Your task to perform on an android device: turn on notifications settings in the gmail app Image 0: 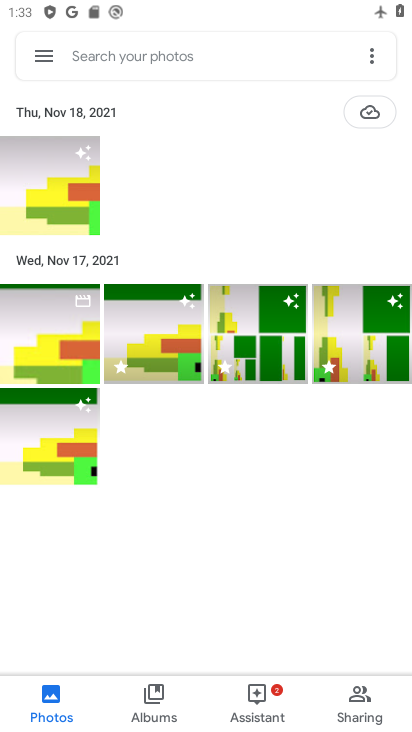
Step 0: press home button
Your task to perform on an android device: turn on notifications settings in the gmail app Image 1: 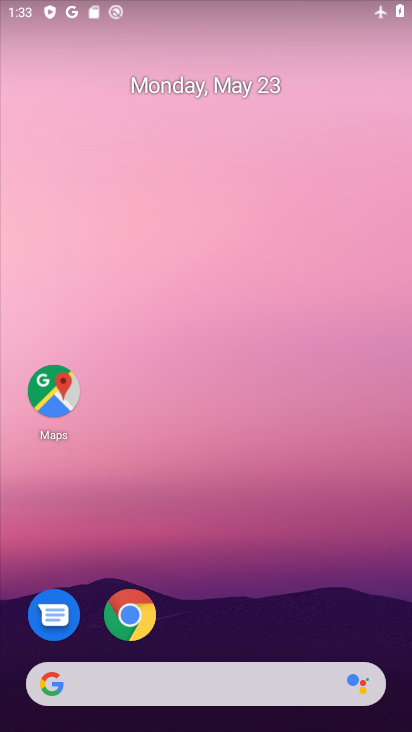
Step 1: drag from (206, 644) to (164, 122)
Your task to perform on an android device: turn on notifications settings in the gmail app Image 2: 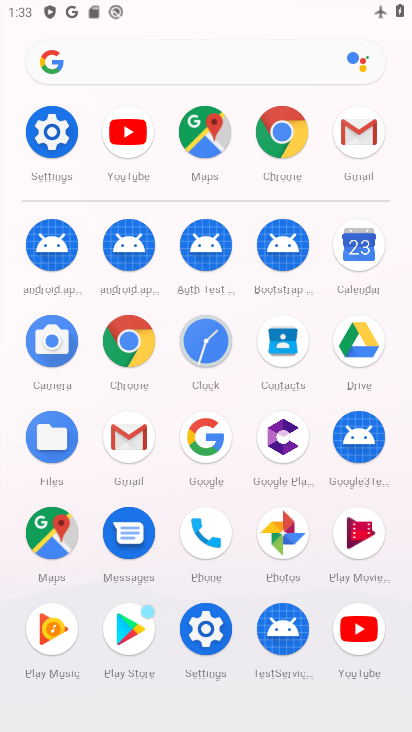
Step 2: click (126, 423)
Your task to perform on an android device: turn on notifications settings in the gmail app Image 3: 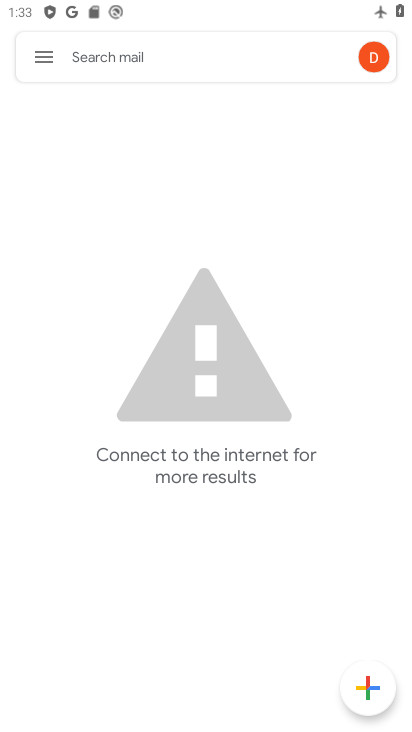
Step 3: click (50, 58)
Your task to perform on an android device: turn on notifications settings in the gmail app Image 4: 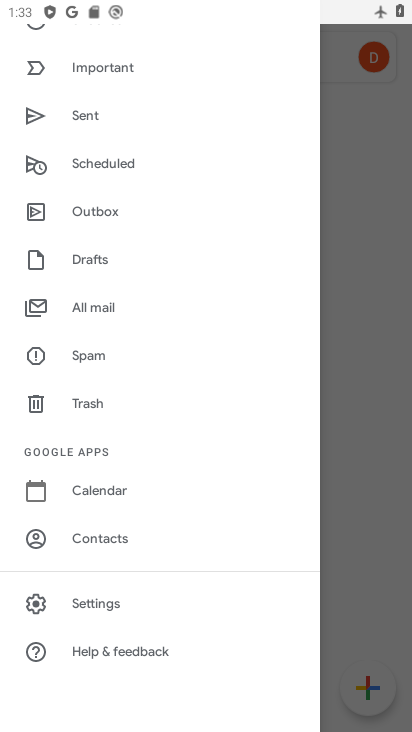
Step 4: click (78, 606)
Your task to perform on an android device: turn on notifications settings in the gmail app Image 5: 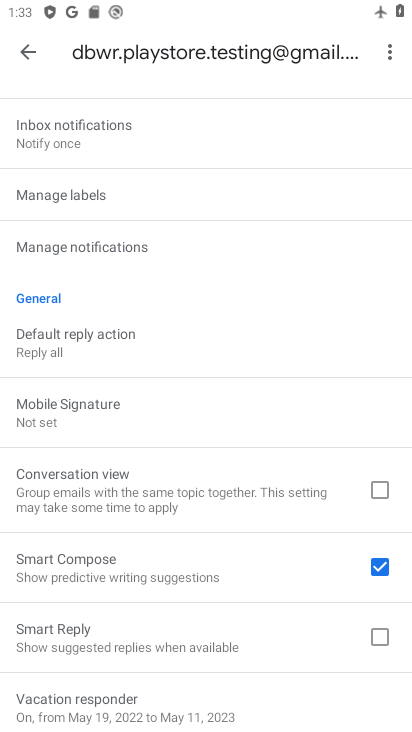
Step 5: drag from (78, 606) to (81, 300)
Your task to perform on an android device: turn on notifications settings in the gmail app Image 6: 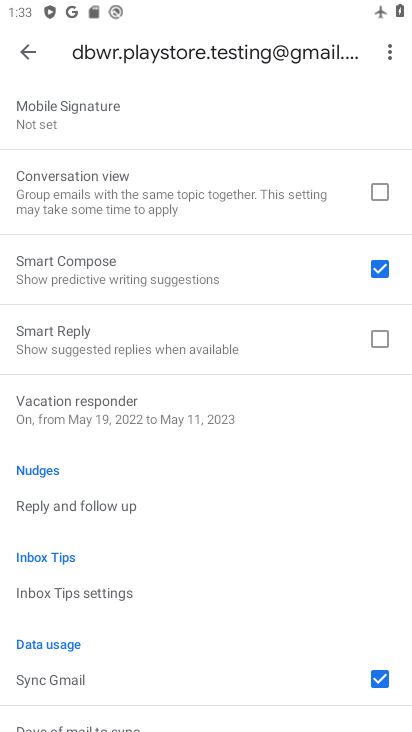
Step 6: click (27, 60)
Your task to perform on an android device: turn on notifications settings in the gmail app Image 7: 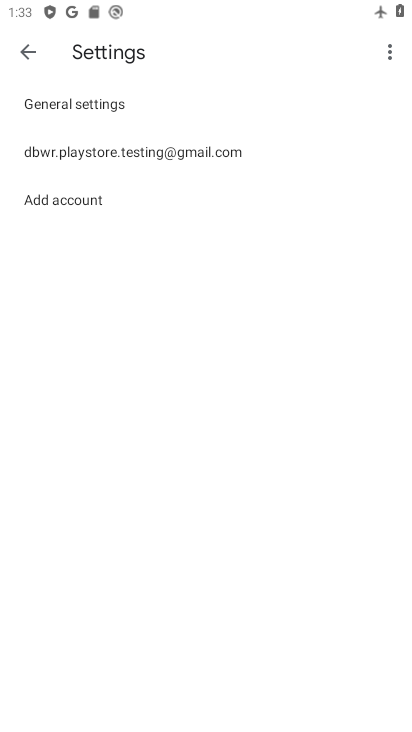
Step 7: click (56, 97)
Your task to perform on an android device: turn on notifications settings in the gmail app Image 8: 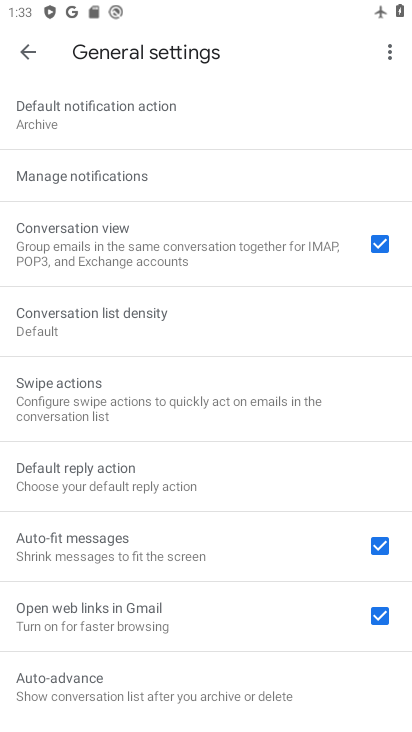
Step 8: click (84, 166)
Your task to perform on an android device: turn on notifications settings in the gmail app Image 9: 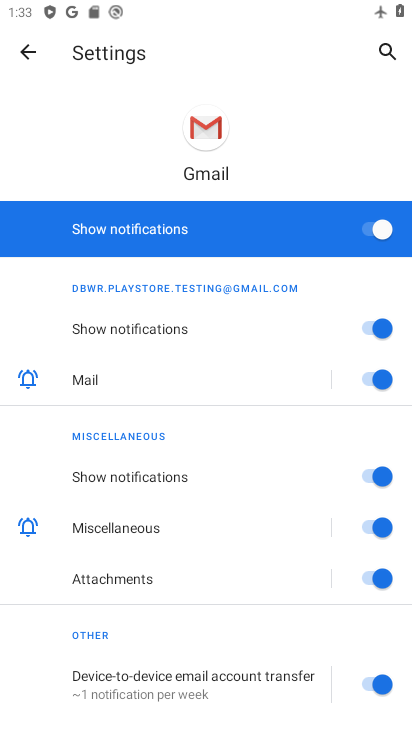
Step 9: task complete